Your task to perform on an android device: Turn off the flashlight Image 0: 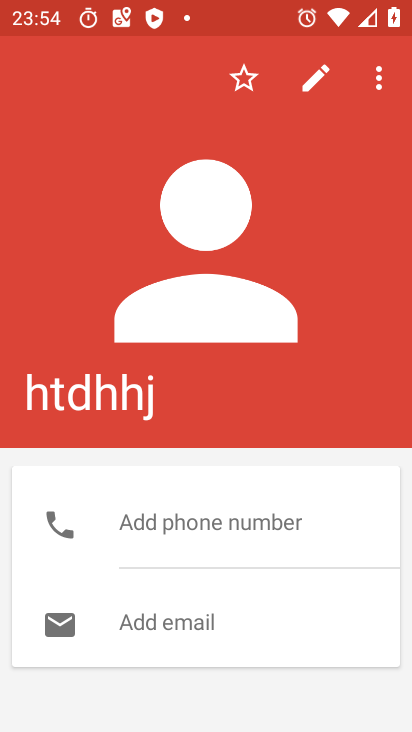
Step 0: press home button
Your task to perform on an android device: Turn off the flashlight Image 1: 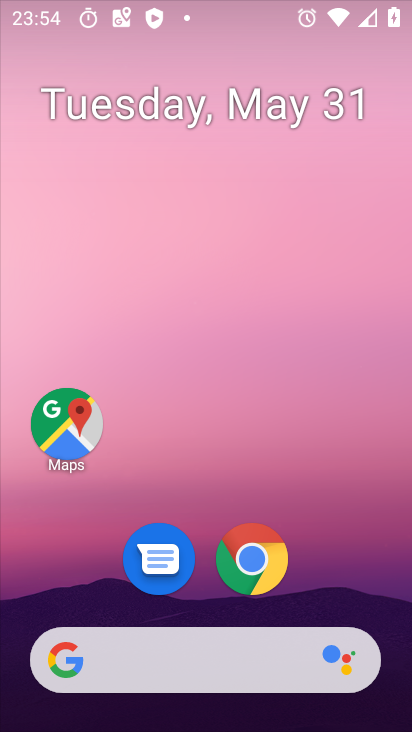
Step 1: drag from (305, 568) to (307, 112)
Your task to perform on an android device: Turn off the flashlight Image 2: 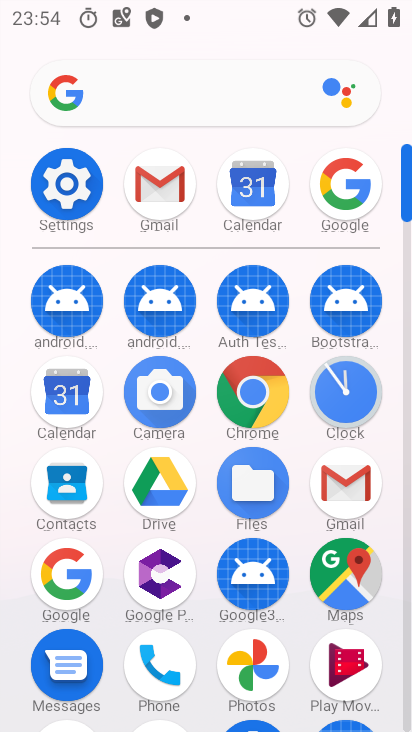
Step 2: click (58, 188)
Your task to perform on an android device: Turn off the flashlight Image 3: 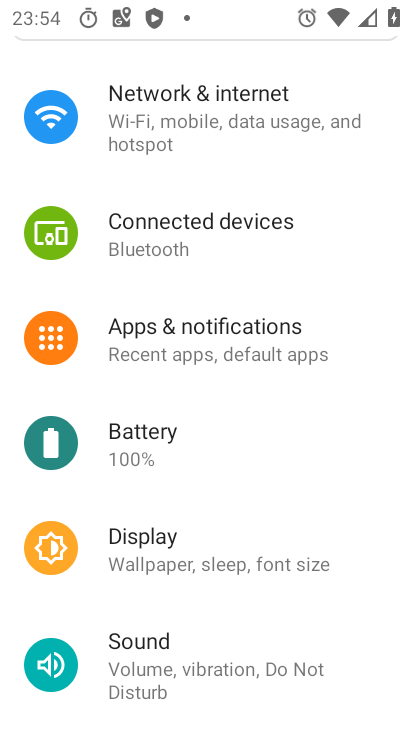
Step 3: drag from (206, 109) to (248, 698)
Your task to perform on an android device: Turn off the flashlight Image 4: 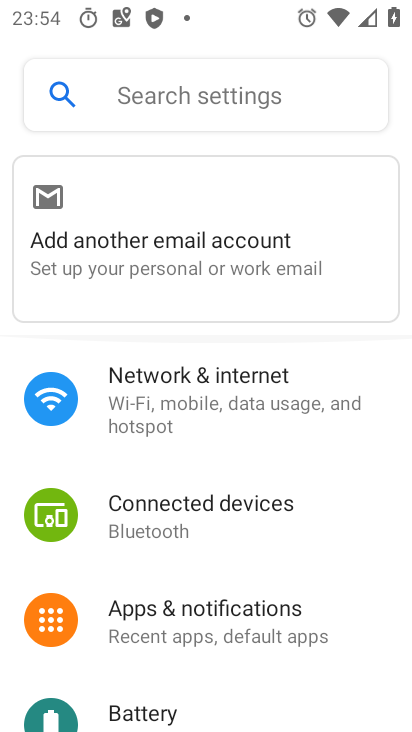
Step 4: click (164, 93)
Your task to perform on an android device: Turn off the flashlight Image 5: 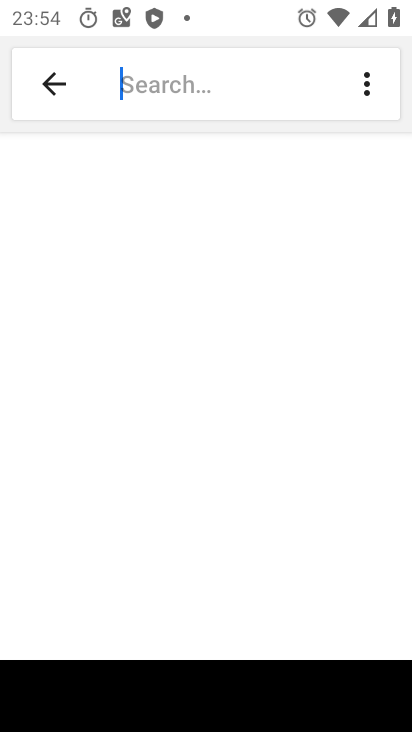
Step 5: type "flash"
Your task to perform on an android device: Turn off the flashlight Image 6: 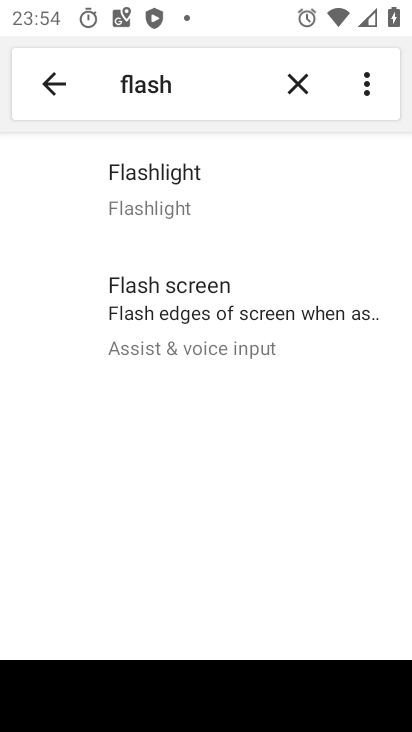
Step 6: task complete